Your task to perform on an android device: Open the Play Movies app and select the watchlist tab. Image 0: 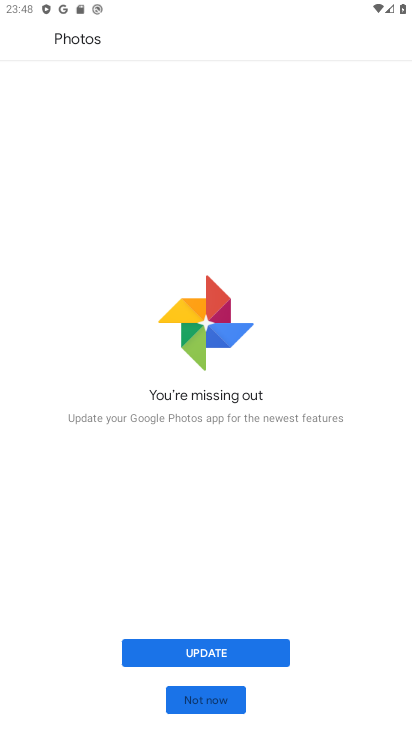
Step 0: press home button
Your task to perform on an android device: Open the Play Movies app and select the watchlist tab. Image 1: 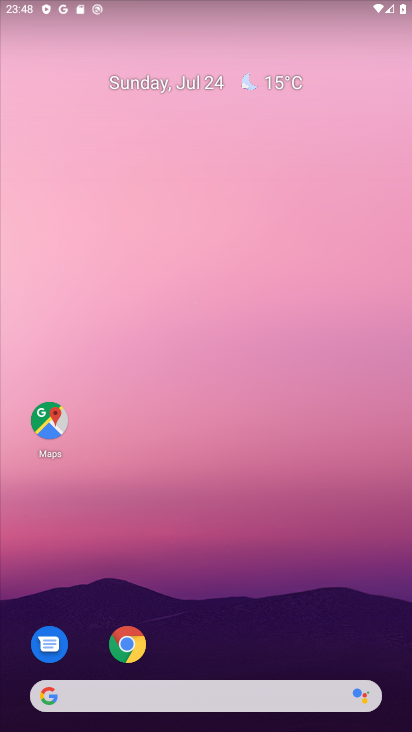
Step 1: drag from (194, 694) to (185, 75)
Your task to perform on an android device: Open the Play Movies app and select the watchlist tab. Image 2: 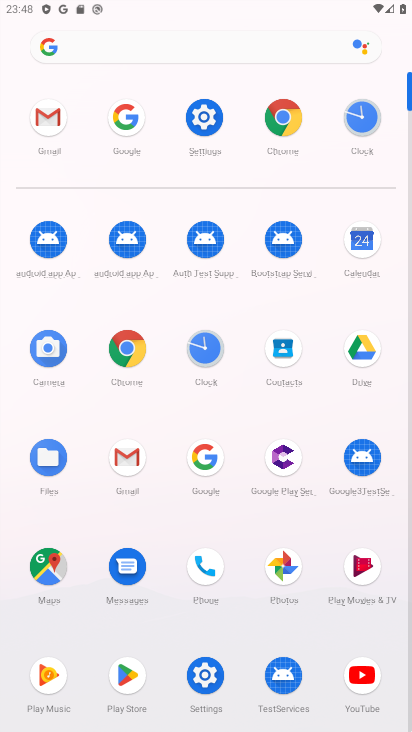
Step 2: click (364, 562)
Your task to perform on an android device: Open the Play Movies app and select the watchlist tab. Image 3: 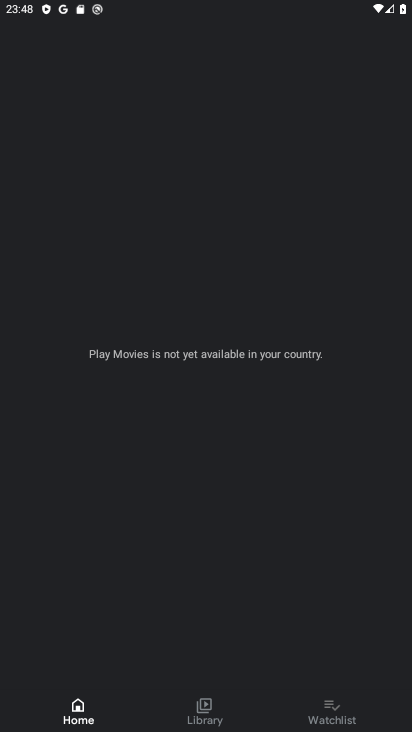
Step 3: click (329, 712)
Your task to perform on an android device: Open the Play Movies app and select the watchlist tab. Image 4: 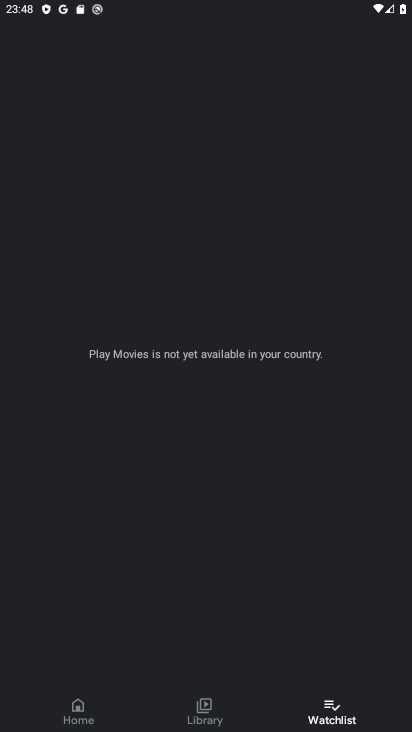
Step 4: task complete